Your task to perform on an android device: toggle sleep mode Image 0: 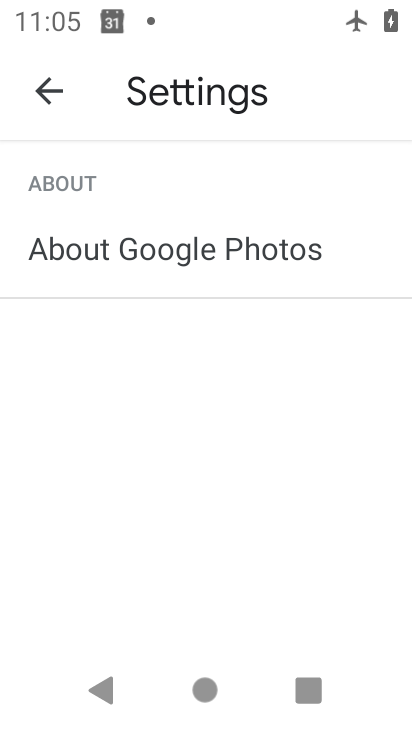
Step 0: press home button
Your task to perform on an android device: toggle sleep mode Image 1: 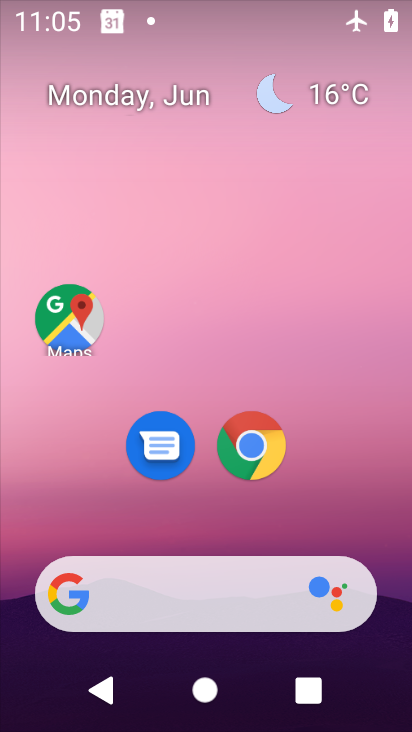
Step 1: drag from (318, 497) to (325, 98)
Your task to perform on an android device: toggle sleep mode Image 2: 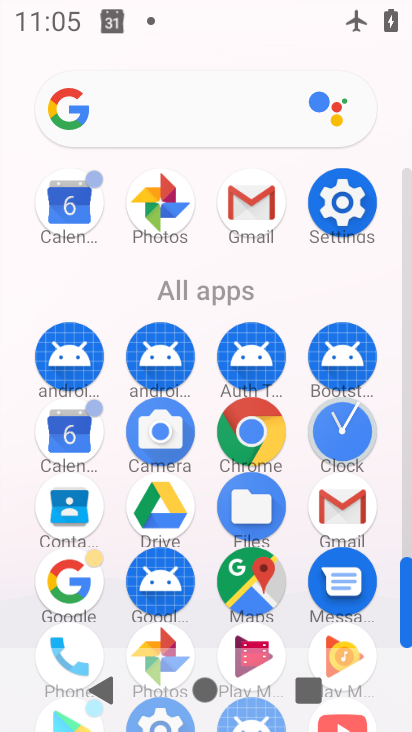
Step 2: click (359, 192)
Your task to perform on an android device: toggle sleep mode Image 3: 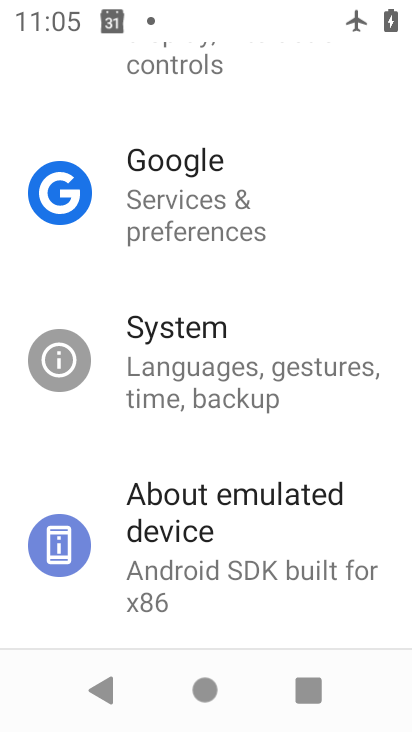
Step 3: drag from (77, 460) to (112, 274)
Your task to perform on an android device: toggle sleep mode Image 4: 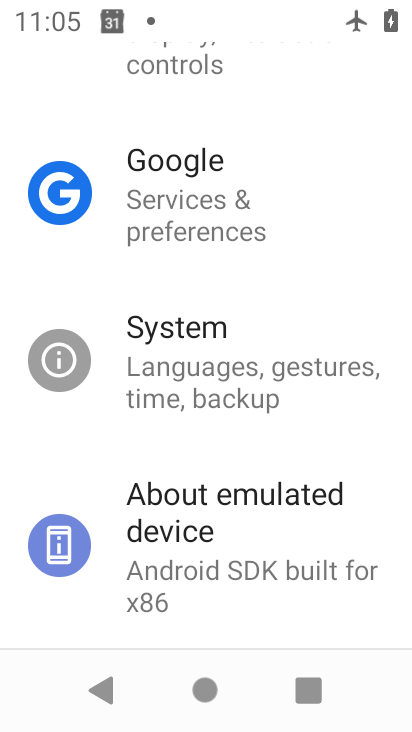
Step 4: drag from (72, 267) to (11, 672)
Your task to perform on an android device: toggle sleep mode Image 5: 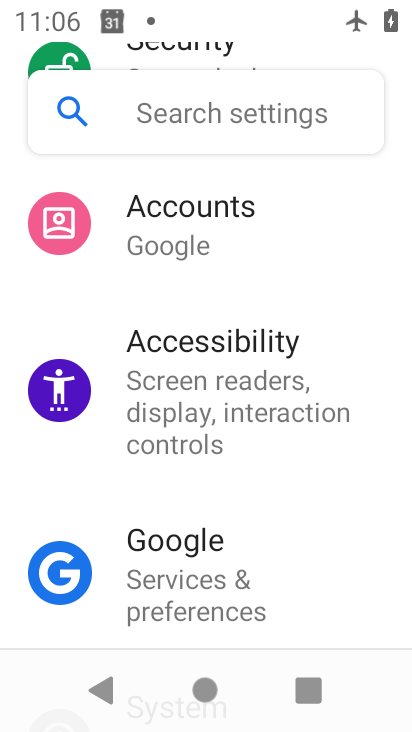
Step 5: drag from (88, 288) to (107, 411)
Your task to perform on an android device: toggle sleep mode Image 6: 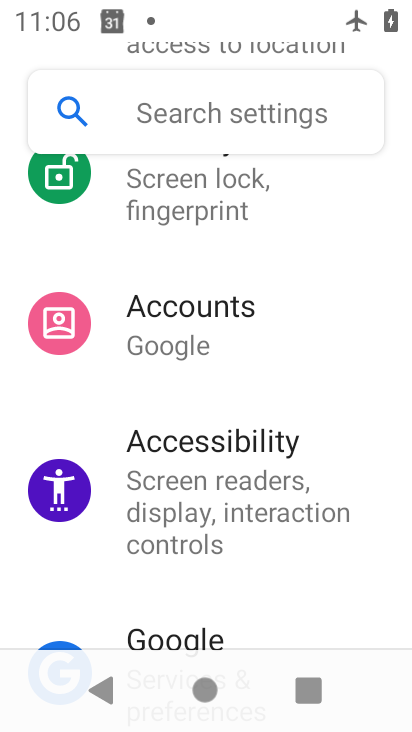
Step 6: drag from (38, 248) to (127, 14)
Your task to perform on an android device: toggle sleep mode Image 7: 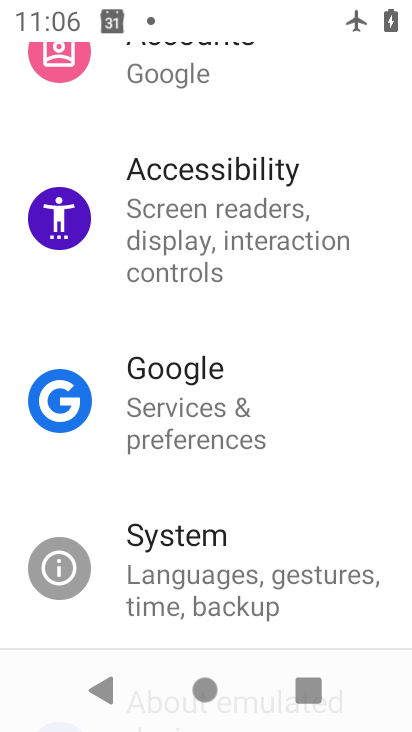
Step 7: drag from (34, 309) to (2, 624)
Your task to perform on an android device: toggle sleep mode Image 8: 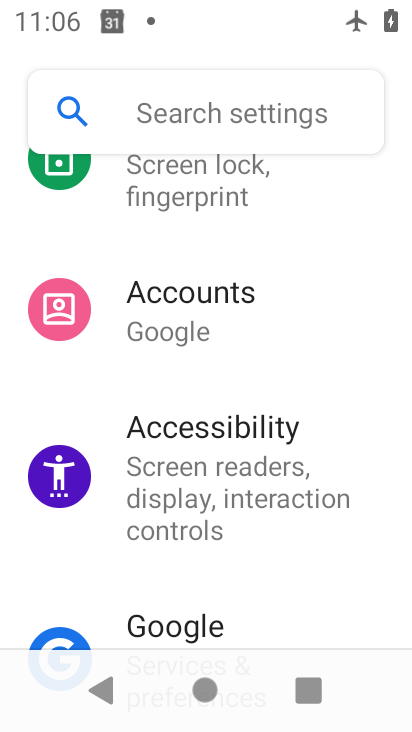
Step 8: drag from (48, 225) to (16, 475)
Your task to perform on an android device: toggle sleep mode Image 9: 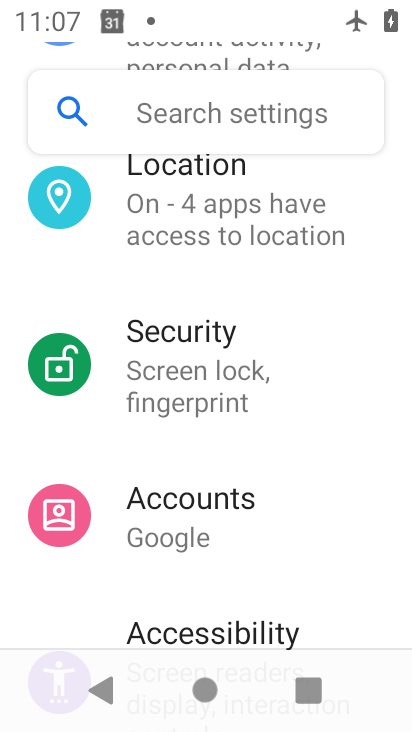
Step 9: drag from (50, 273) to (88, 396)
Your task to perform on an android device: toggle sleep mode Image 10: 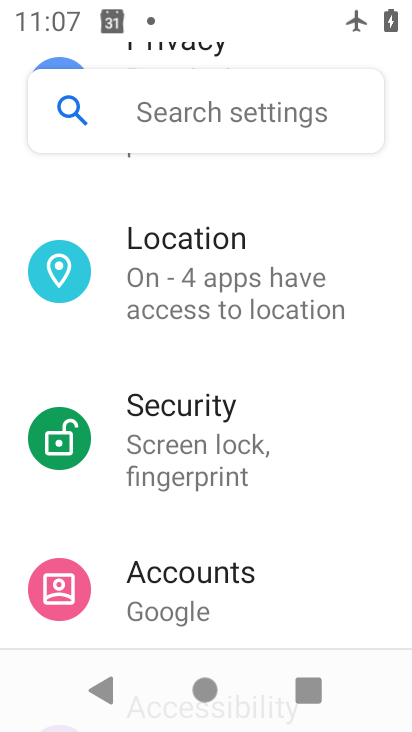
Step 10: drag from (36, 192) to (45, 494)
Your task to perform on an android device: toggle sleep mode Image 11: 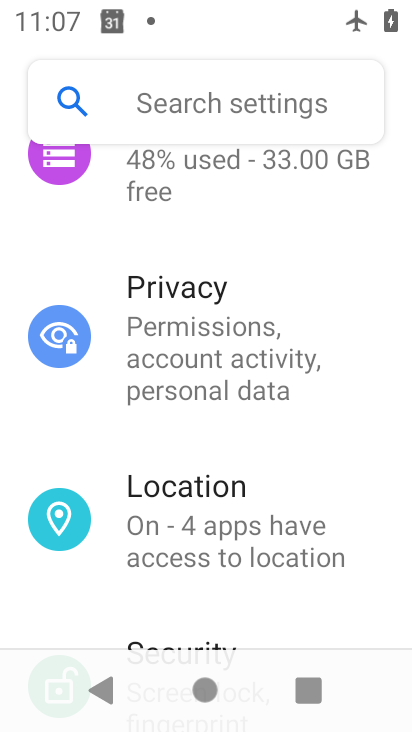
Step 11: drag from (50, 232) to (78, 725)
Your task to perform on an android device: toggle sleep mode Image 12: 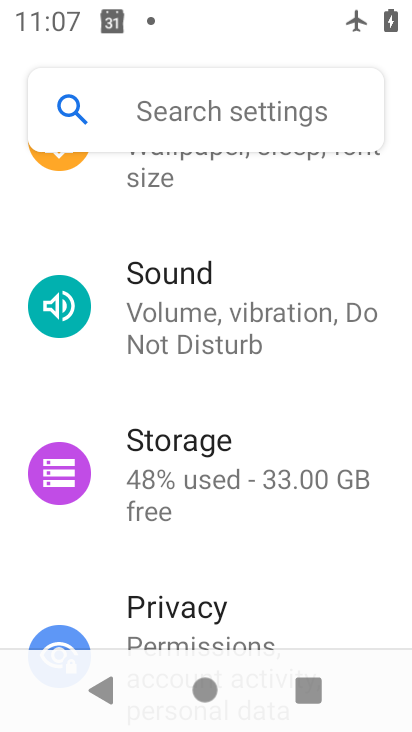
Step 12: drag from (43, 211) to (92, 526)
Your task to perform on an android device: toggle sleep mode Image 13: 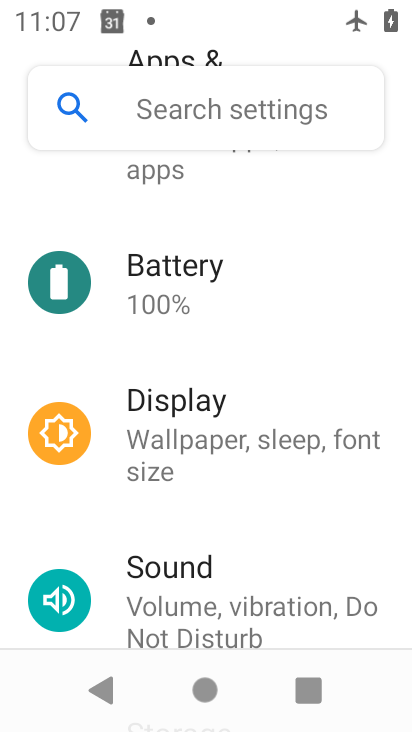
Step 13: click (163, 446)
Your task to perform on an android device: toggle sleep mode Image 14: 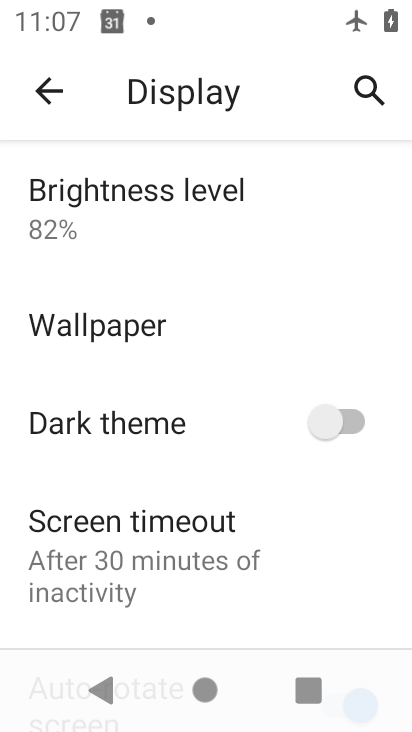
Step 14: drag from (16, 498) to (22, 110)
Your task to perform on an android device: toggle sleep mode Image 15: 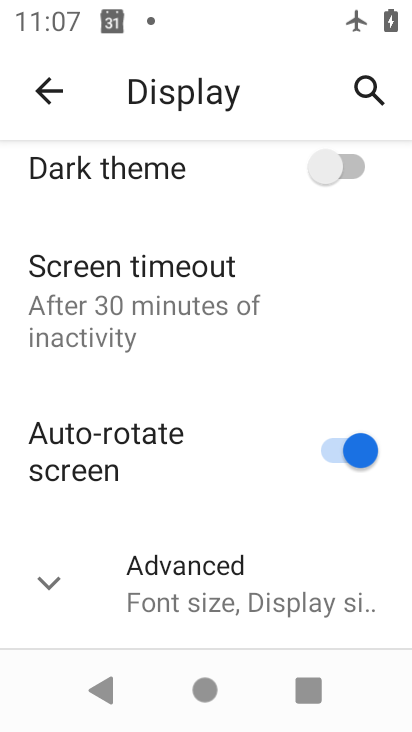
Step 15: click (53, 587)
Your task to perform on an android device: toggle sleep mode Image 16: 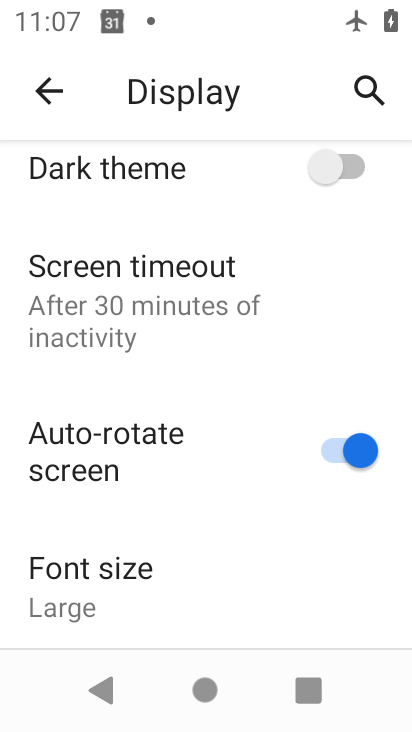
Step 16: task complete